Your task to perform on an android device: Open settings on Google Maps Image 0: 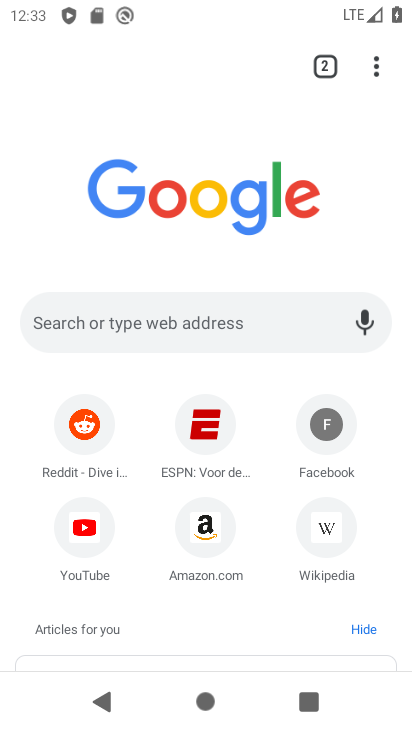
Step 0: press home button
Your task to perform on an android device: Open settings on Google Maps Image 1: 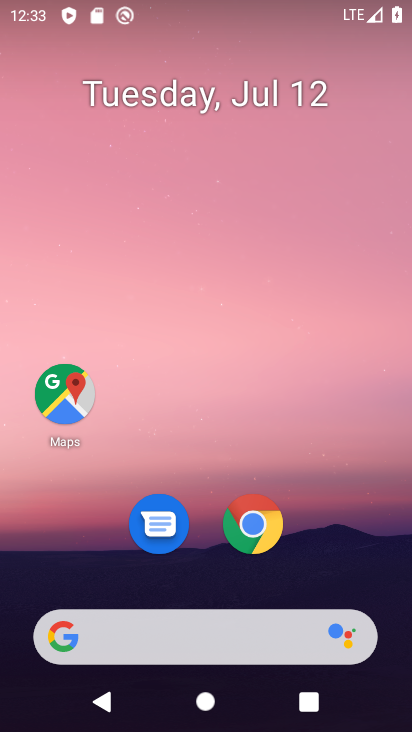
Step 1: click (60, 392)
Your task to perform on an android device: Open settings on Google Maps Image 2: 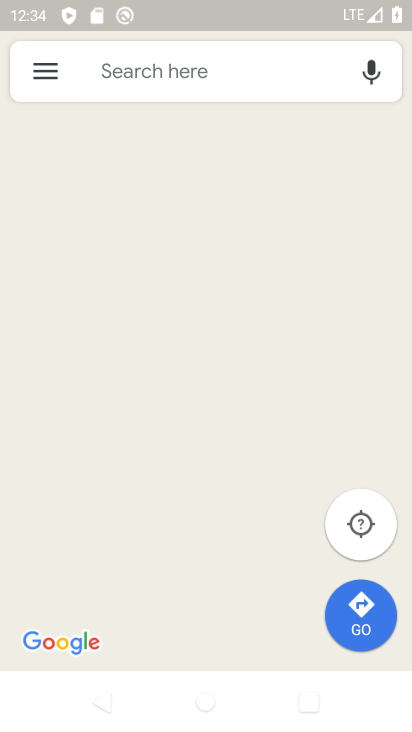
Step 2: click (45, 76)
Your task to perform on an android device: Open settings on Google Maps Image 3: 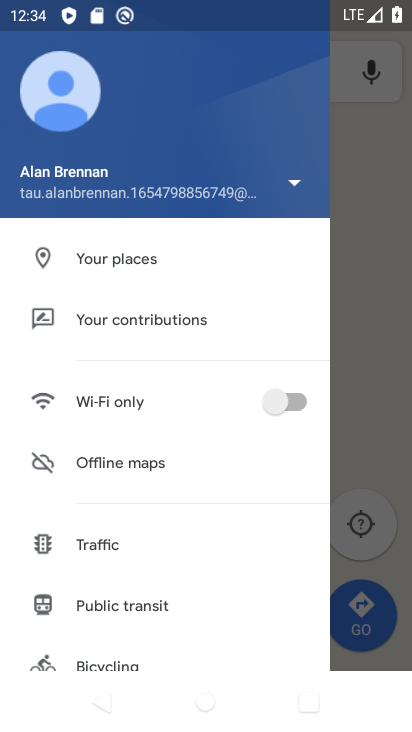
Step 3: drag from (144, 583) to (165, 100)
Your task to perform on an android device: Open settings on Google Maps Image 4: 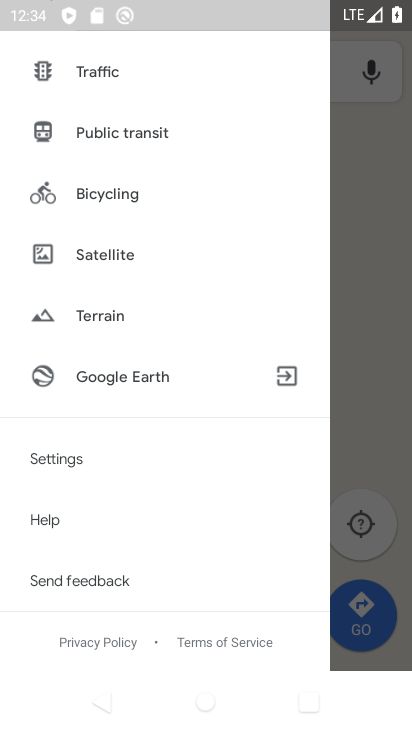
Step 4: drag from (141, 478) to (147, 387)
Your task to perform on an android device: Open settings on Google Maps Image 5: 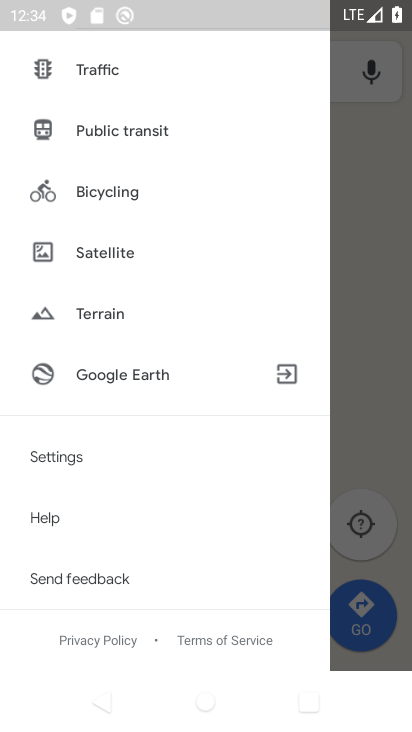
Step 5: click (73, 454)
Your task to perform on an android device: Open settings on Google Maps Image 6: 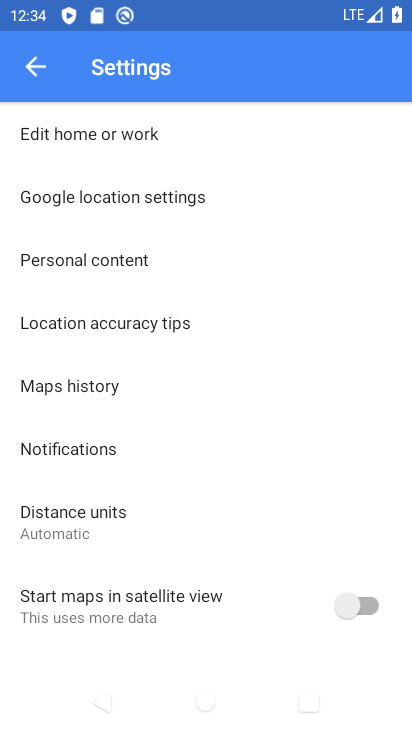
Step 6: task complete